Your task to perform on an android device: turn on sleep mode Image 0: 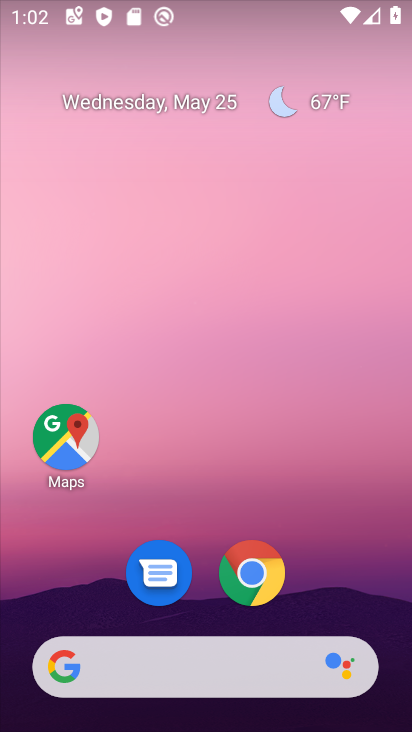
Step 0: drag from (370, 597) to (348, 33)
Your task to perform on an android device: turn on sleep mode Image 1: 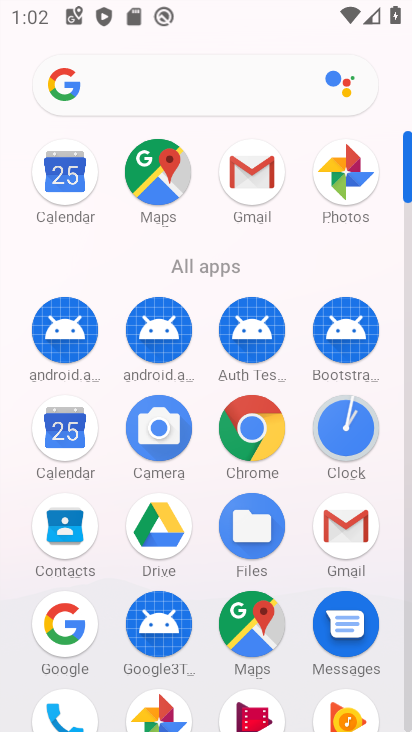
Step 1: click (408, 695)
Your task to perform on an android device: turn on sleep mode Image 2: 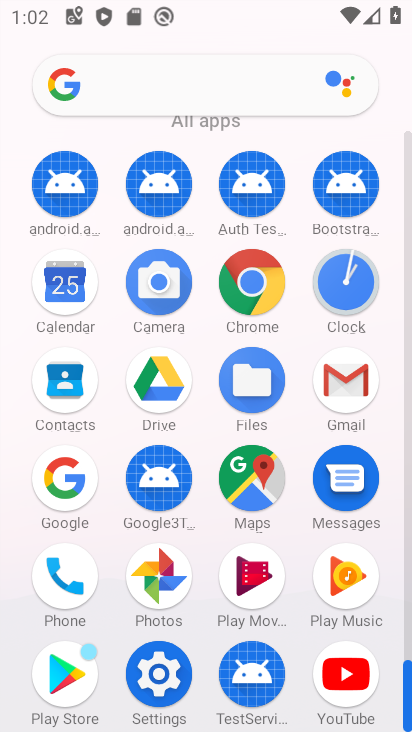
Step 2: click (155, 669)
Your task to perform on an android device: turn on sleep mode Image 3: 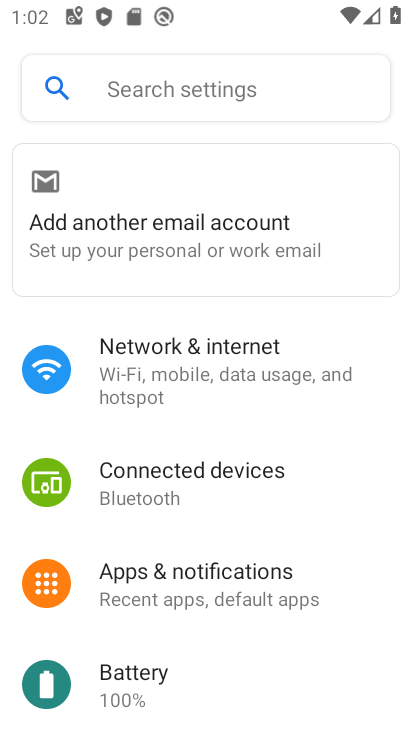
Step 3: drag from (257, 611) to (303, 209)
Your task to perform on an android device: turn on sleep mode Image 4: 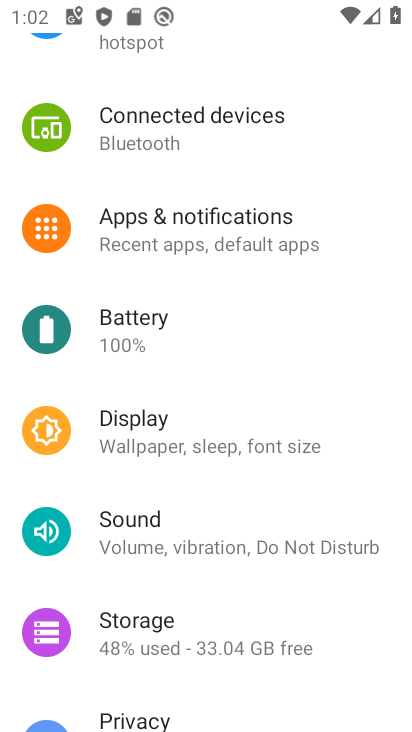
Step 4: click (161, 427)
Your task to perform on an android device: turn on sleep mode Image 5: 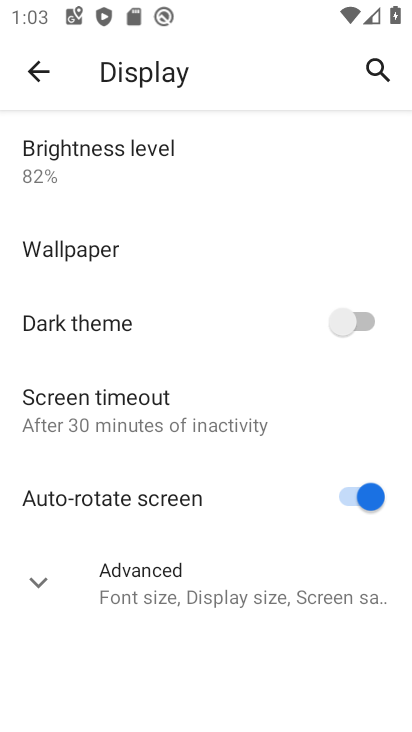
Step 5: click (51, 570)
Your task to perform on an android device: turn on sleep mode Image 6: 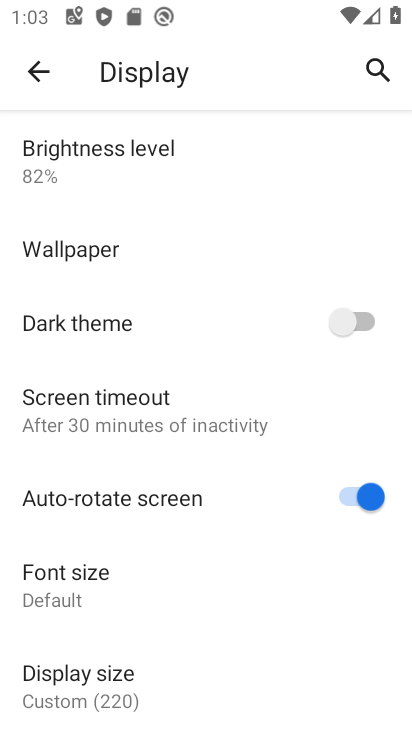
Step 6: task complete